Your task to perform on an android device: Do I have any events this weekend? Image 0: 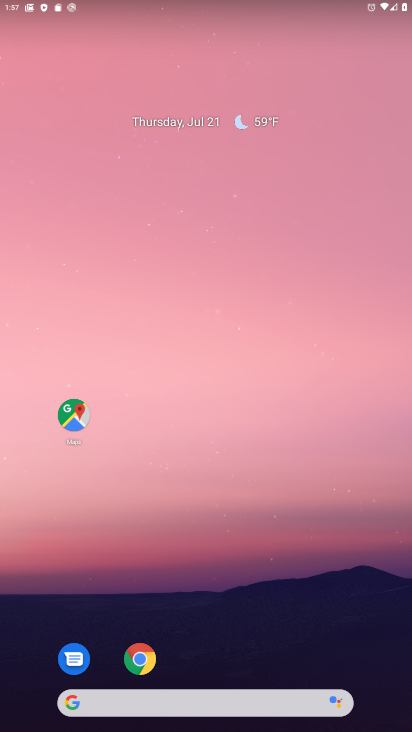
Step 0: press home button
Your task to perform on an android device: Do I have any events this weekend? Image 1: 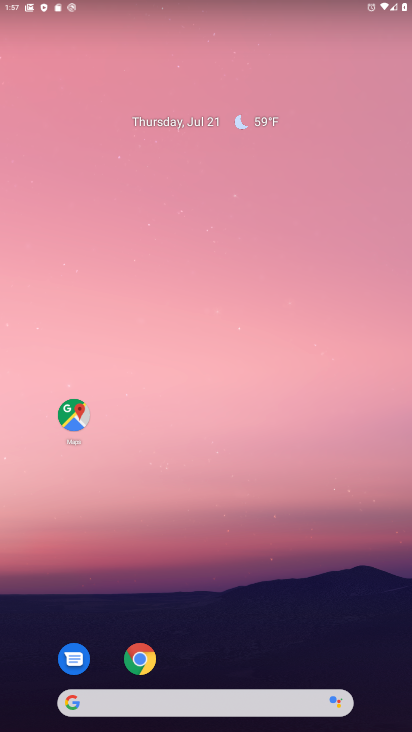
Step 1: drag from (244, 612) to (16, 217)
Your task to perform on an android device: Do I have any events this weekend? Image 2: 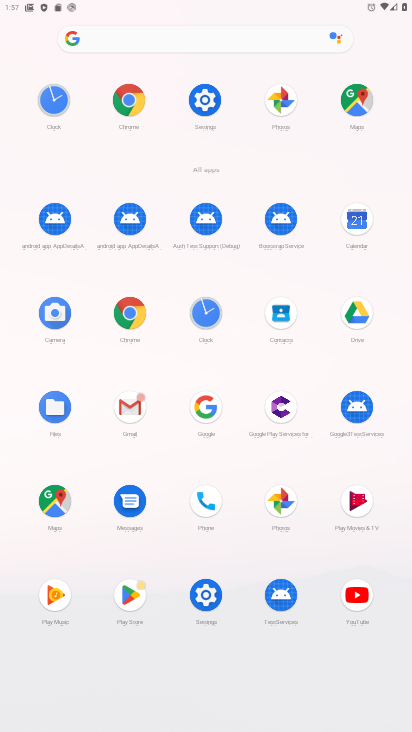
Step 2: click (357, 220)
Your task to perform on an android device: Do I have any events this weekend? Image 3: 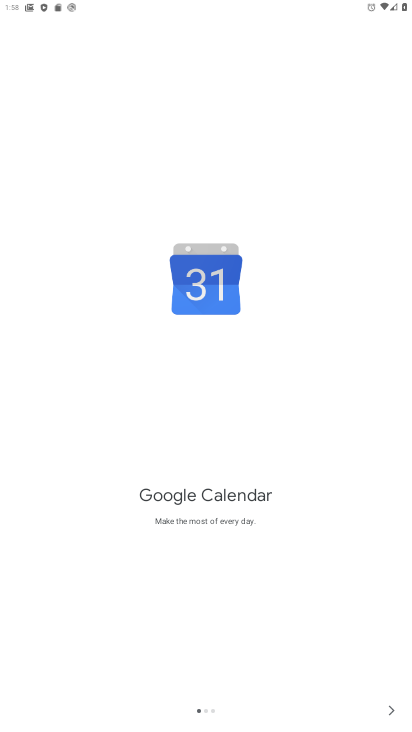
Step 3: click (387, 715)
Your task to perform on an android device: Do I have any events this weekend? Image 4: 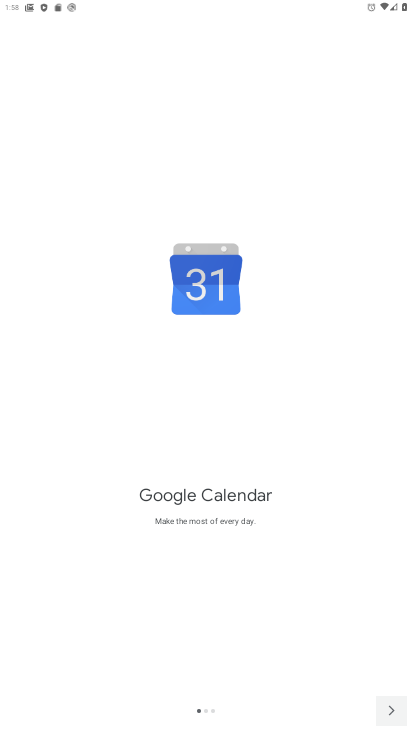
Step 4: click (387, 714)
Your task to perform on an android device: Do I have any events this weekend? Image 5: 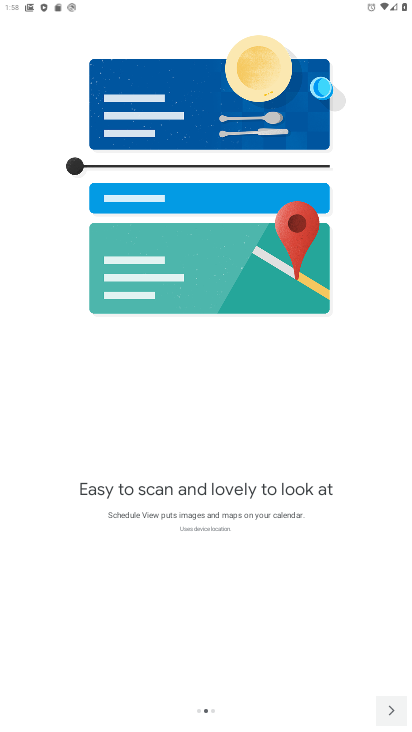
Step 5: click (387, 714)
Your task to perform on an android device: Do I have any events this weekend? Image 6: 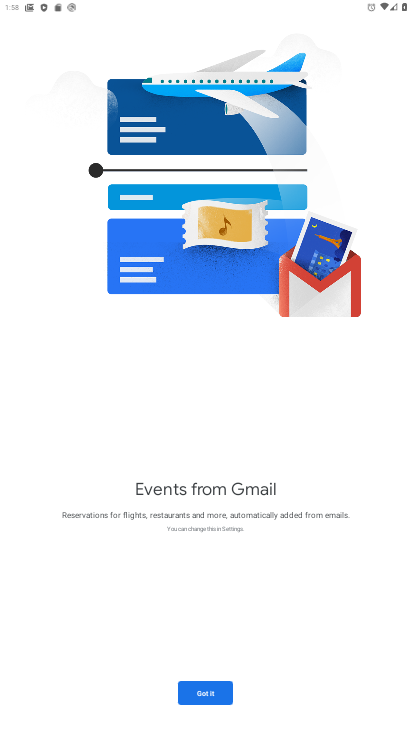
Step 6: click (195, 682)
Your task to perform on an android device: Do I have any events this weekend? Image 7: 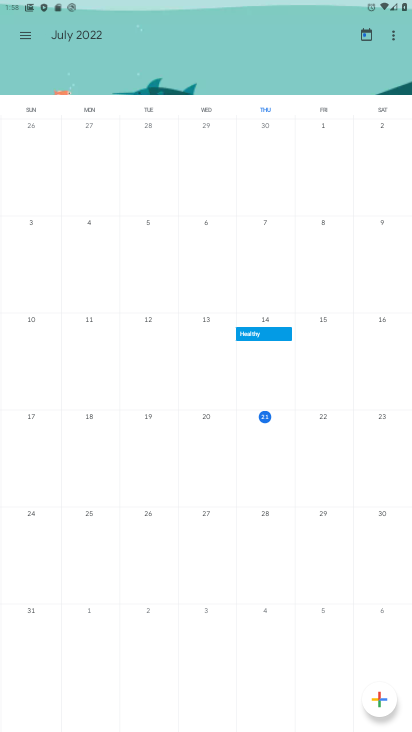
Step 7: click (16, 31)
Your task to perform on an android device: Do I have any events this weekend? Image 8: 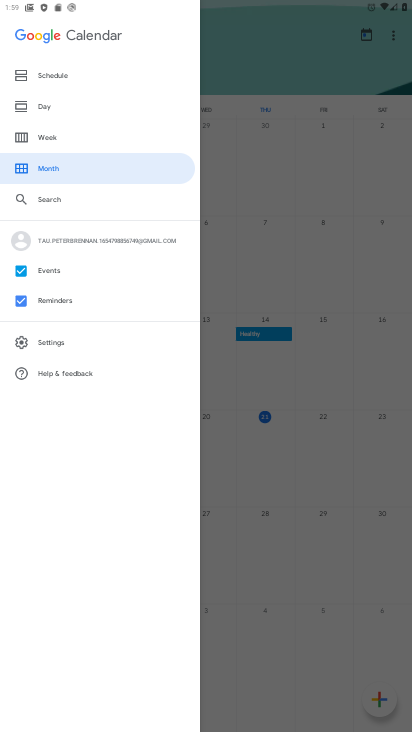
Step 8: click (62, 135)
Your task to perform on an android device: Do I have any events this weekend? Image 9: 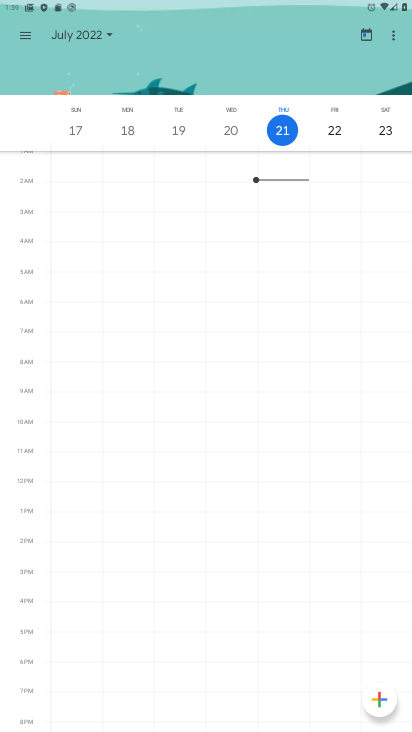
Step 9: click (380, 129)
Your task to perform on an android device: Do I have any events this weekend? Image 10: 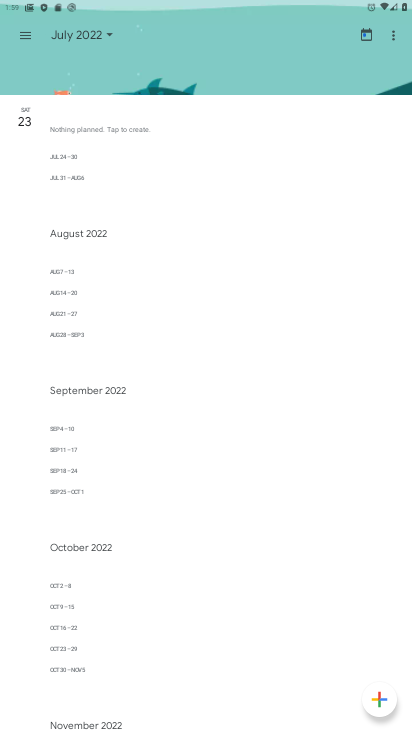
Step 10: task complete